Your task to perform on an android device: Open privacy settings Image 0: 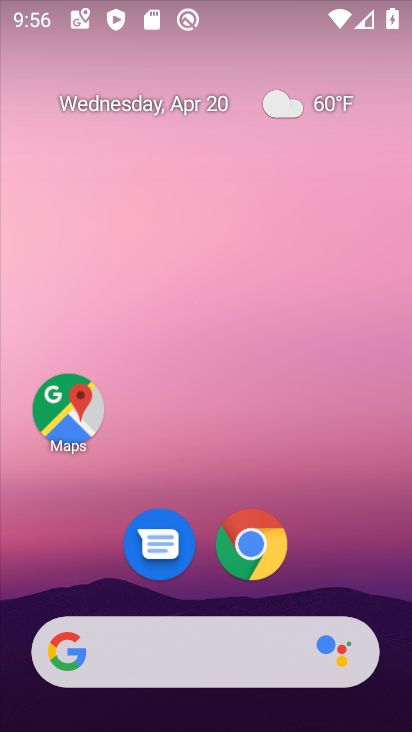
Step 0: drag from (219, 718) to (208, 131)
Your task to perform on an android device: Open privacy settings Image 1: 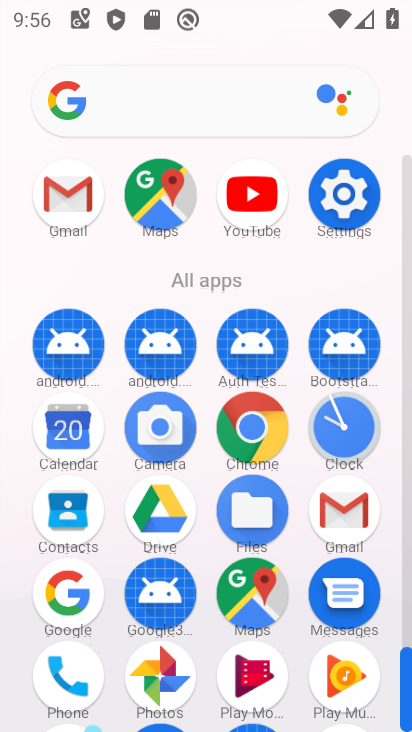
Step 1: click (336, 194)
Your task to perform on an android device: Open privacy settings Image 2: 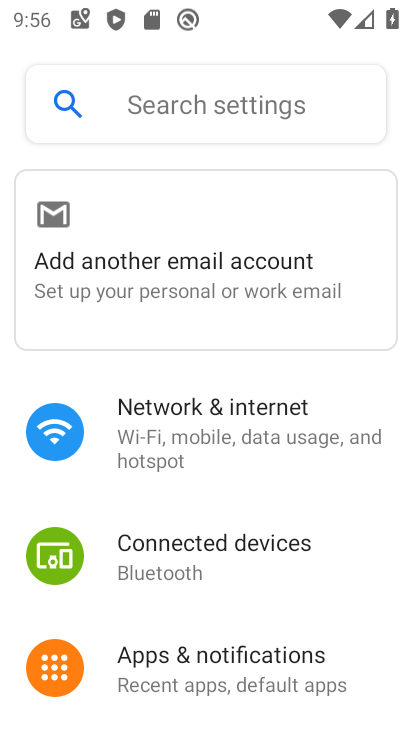
Step 2: drag from (201, 627) to (181, 233)
Your task to perform on an android device: Open privacy settings Image 3: 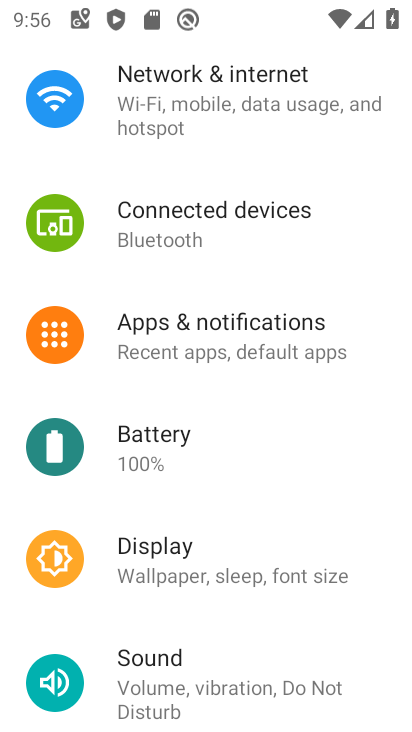
Step 3: drag from (206, 644) to (190, 253)
Your task to perform on an android device: Open privacy settings Image 4: 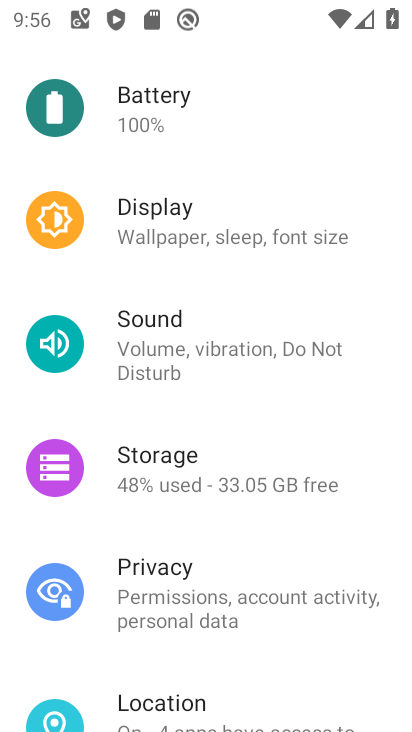
Step 4: click (164, 594)
Your task to perform on an android device: Open privacy settings Image 5: 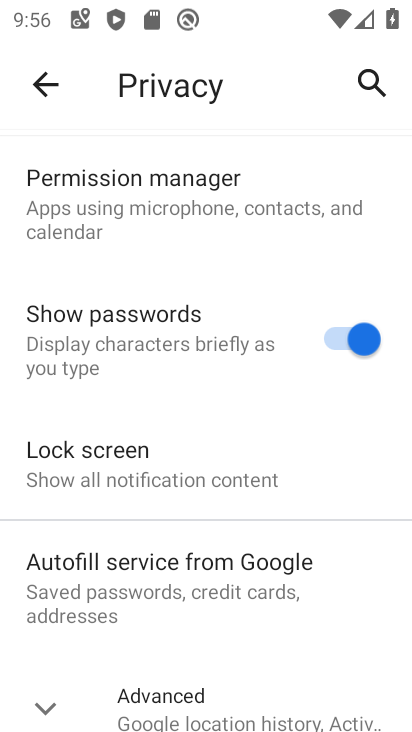
Step 5: task complete